Your task to perform on an android device: toggle improve location accuracy Image 0: 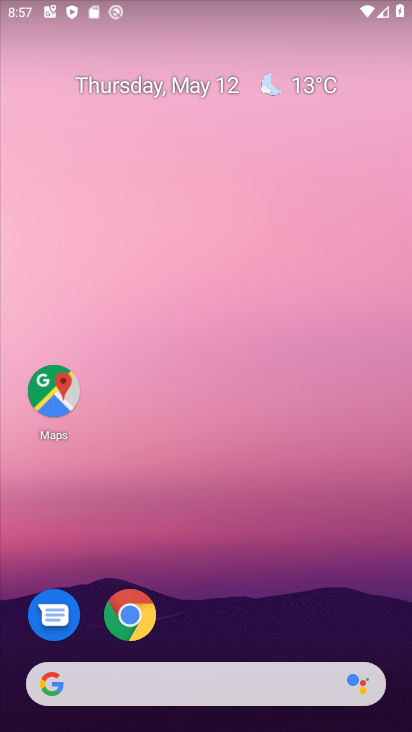
Step 0: drag from (210, 645) to (177, 88)
Your task to perform on an android device: toggle improve location accuracy Image 1: 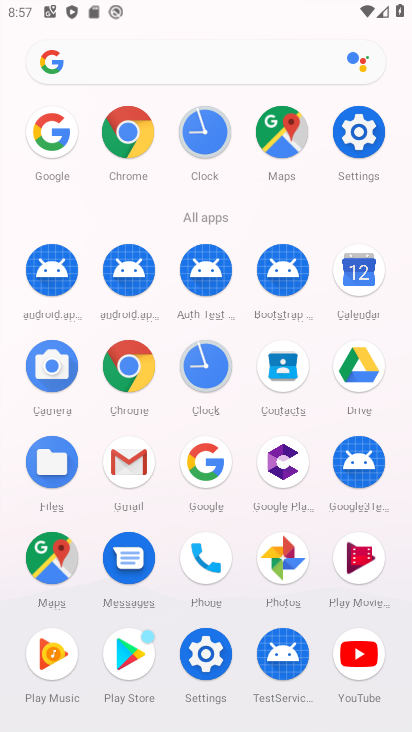
Step 1: click (351, 147)
Your task to perform on an android device: toggle improve location accuracy Image 2: 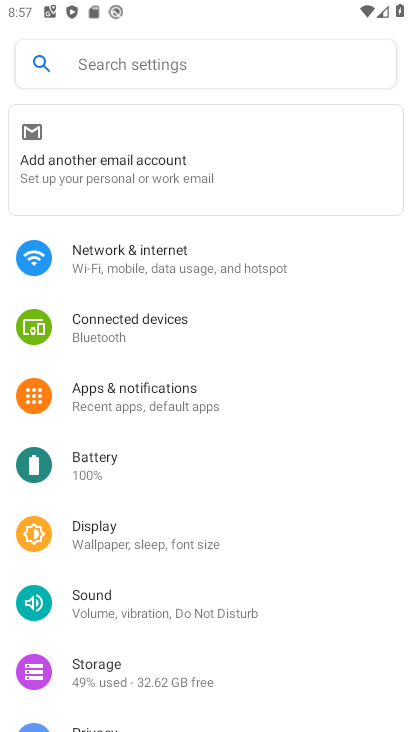
Step 2: drag from (138, 556) to (81, 209)
Your task to perform on an android device: toggle improve location accuracy Image 3: 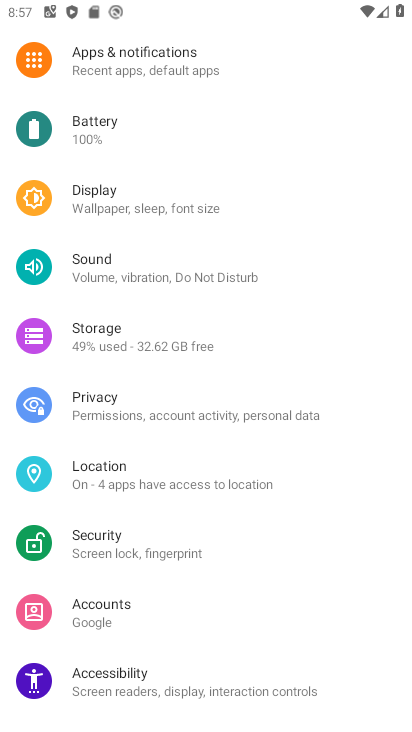
Step 3: click (111, 488)
Your task to perform on an android device: toggle improve location accuracy Image 4: 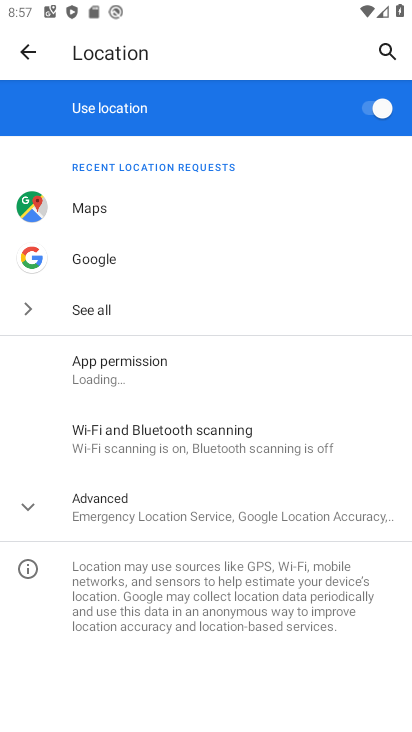
Step 4: click (128, 499)
Your task to perform on an android device: toggle improve location accuracy Image 5: 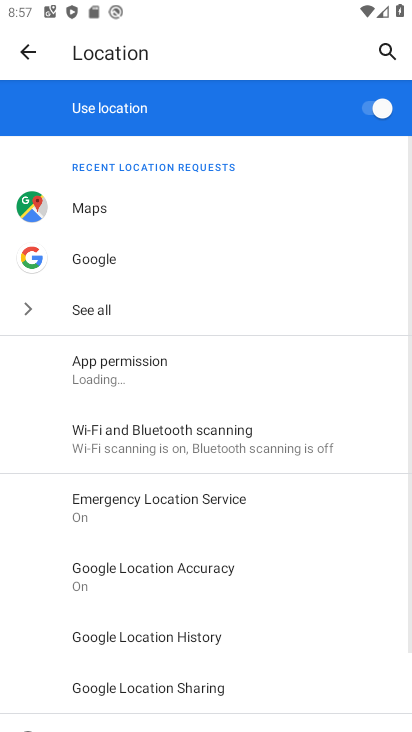
Step 5: click (131, 572)
Your task to perform on an android device: toggle improve location accuracy Image 6: 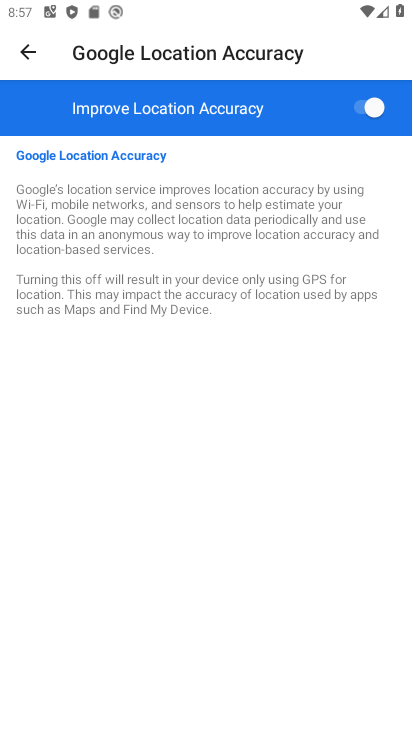
Step 6: click (356, 106)
Your task to perform on an android device: toggle improve location accuracy Image 7: 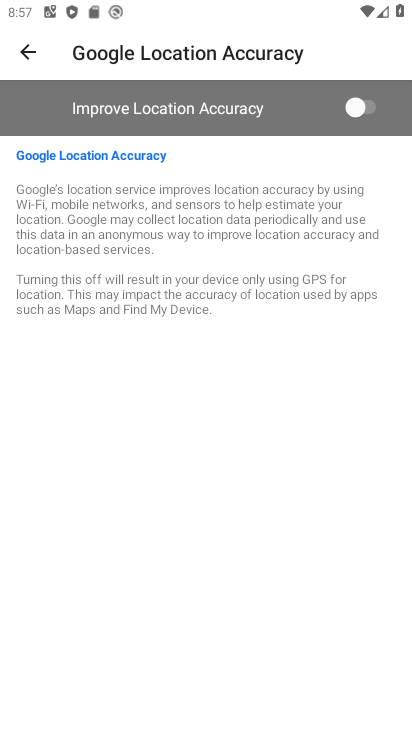
Step 7: task complete